Your task to perform on an android device: Go to accessibility settings Image 0: 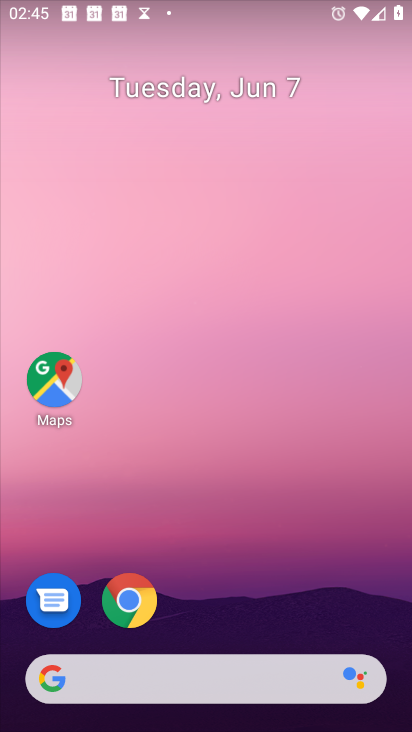
Step 0: drag from (201, 720) to (215, 117)
Your task to perform on an android device: Go to accessibility settings Image 1: 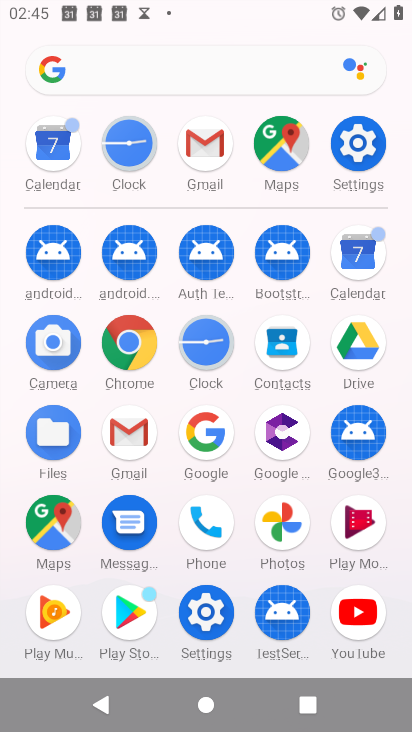
Step 1: click (354, 151)
Your task to perform on an android device: Go to accessibility settings Image 2: 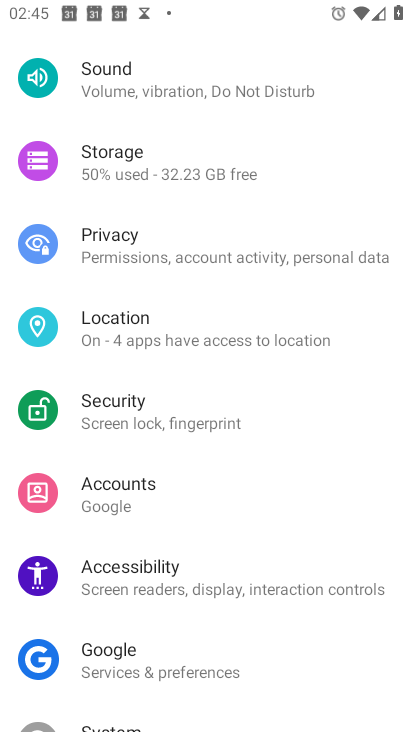
Step 2: click (129, 571)
Your task to perform on an android device: Go to accessibility settings Image 3: 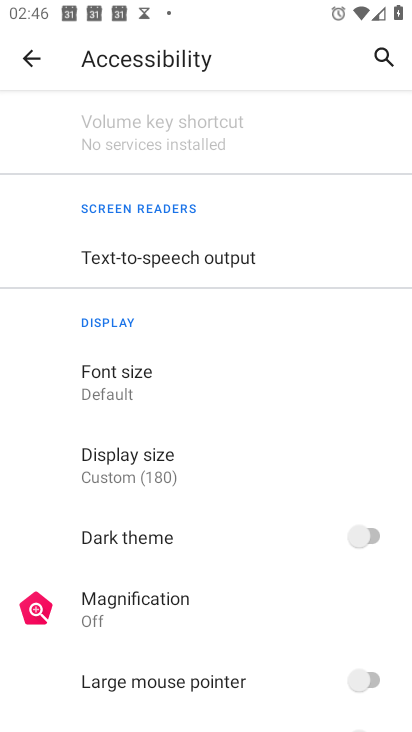
Step 3: task complete